Your task to perform on an android device: Open calendar and show me the fourth week of next month Image 0: 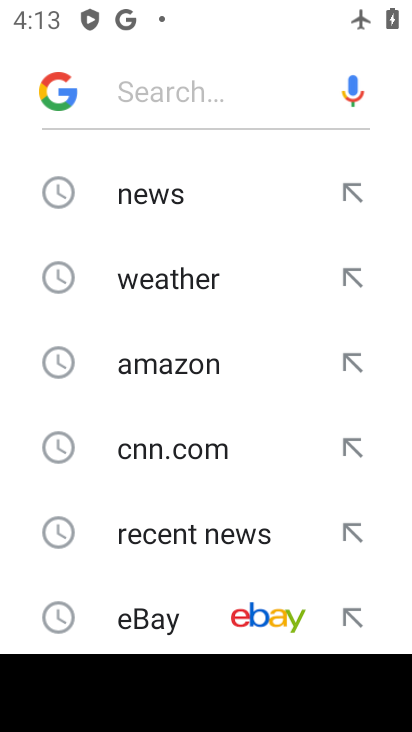
Step 0: press home button
Your task to perform on an android device: Open calendar and show me the fourth week of next month Image 1: 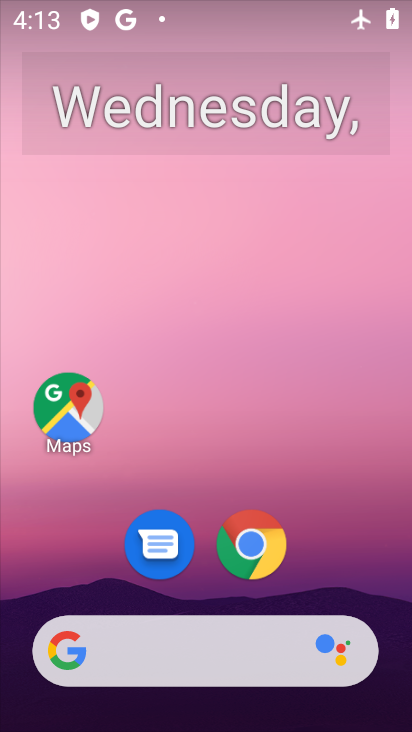
Step 1: drag from (370, 573) to (355, 186)
Your task to perform on an android device: Open calendar and show me the fourth week of next month Image 2: 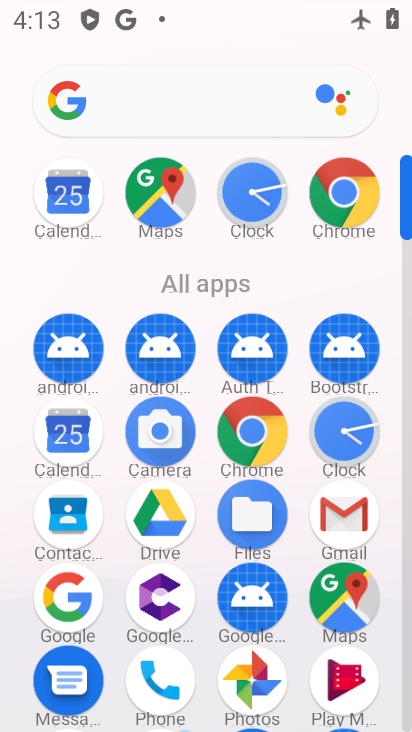
Step 2: click (75, 465)
Your task to perform on an android device: Open calendar and show me the fourth week of next month Image 3: 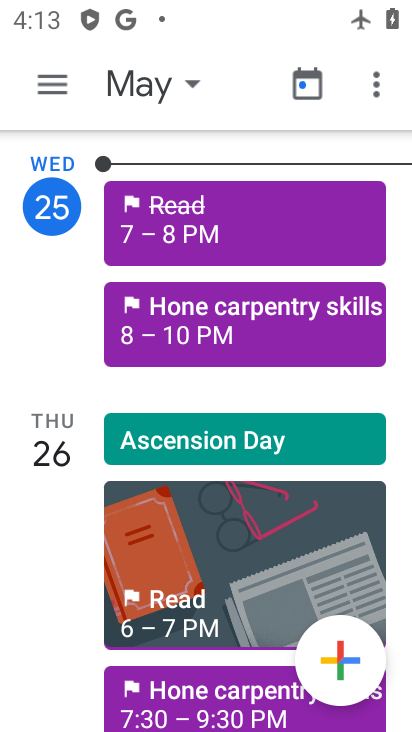
Step 3: click (199, 78)
Your task to perform on an android device: Open calendar and show me the fourth week of next month Image 4: 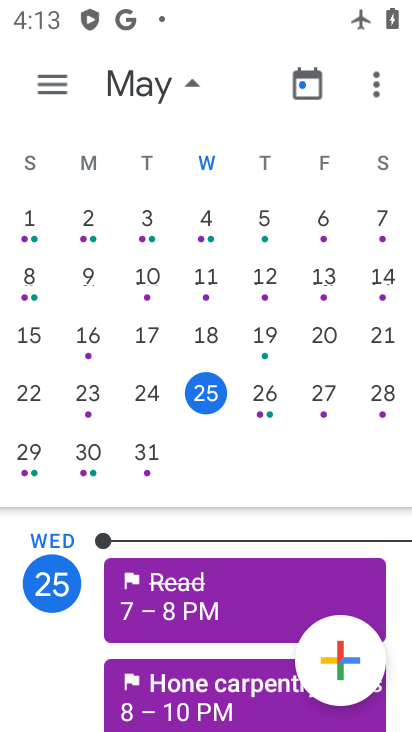
Step 4: drag from (380, 187) to (21, 183)
Your task to perform on an android device: Open calendar and show me the fourth week of next month Image 5: 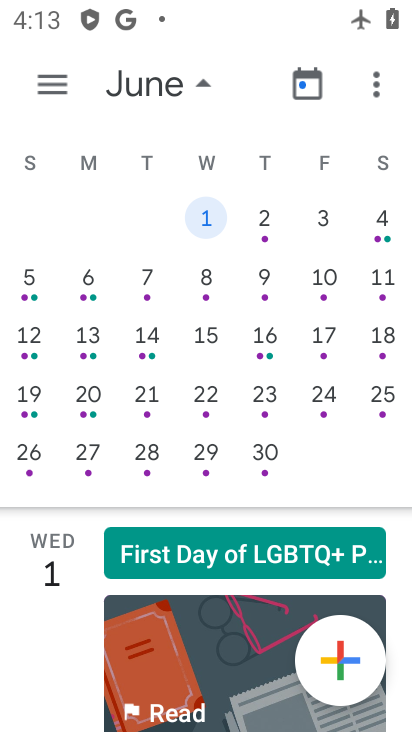
Step 5: click (94, 403)
Your task to perform on an android device: Open calendar and show me the fourth week of next month Image 6: 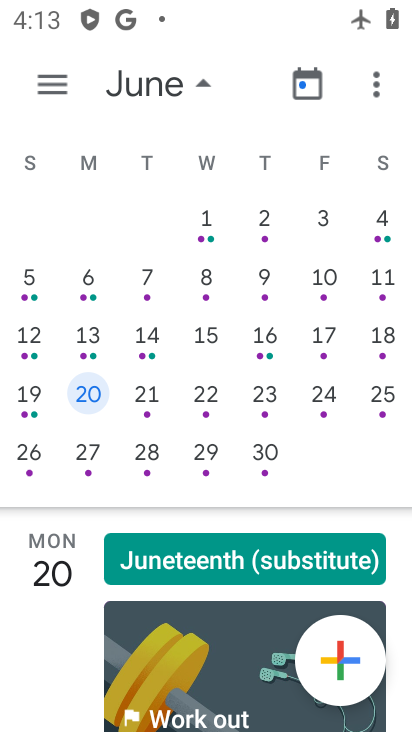
Step 6: task complete